Your task to perform on an android device: Go to wifi settings Image 0: 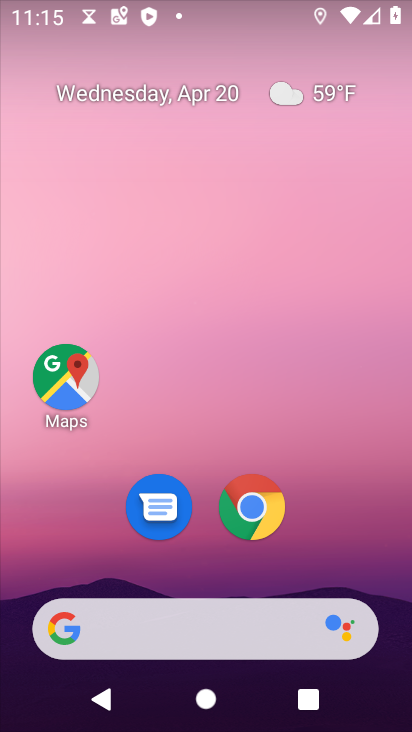
Step 0: drag from (253, 668) to (140, 223)
Your task to perform on an android device: Go to wifi settings Image 1: 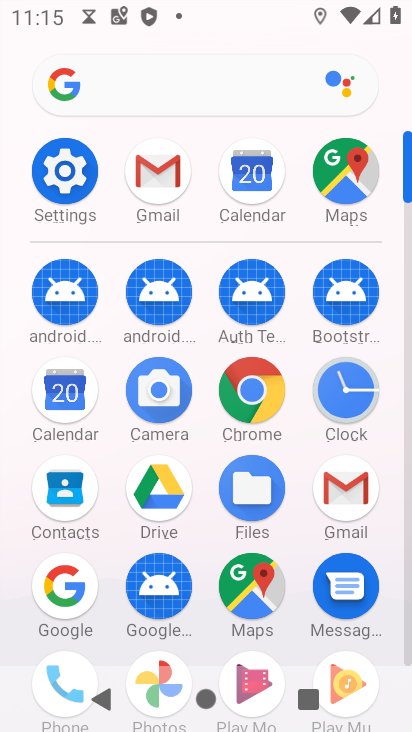
Step 1: click (50, 182)
Your task to perform on an android device: Go to wifi settings Image 2: 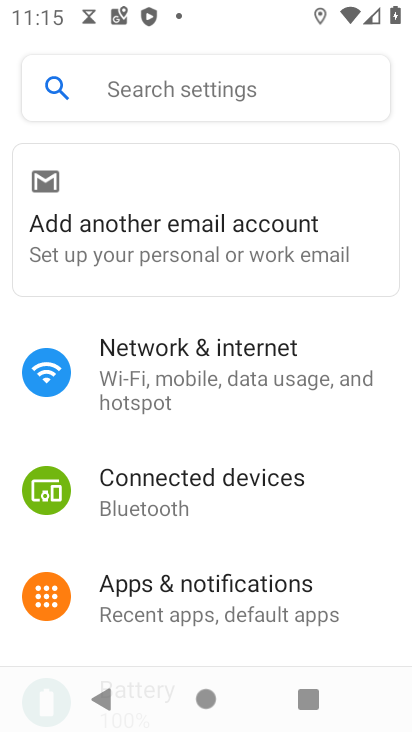
Step 2: click (163, 359)
Your task to perform on an android device: Go to wifi settings Image 3: 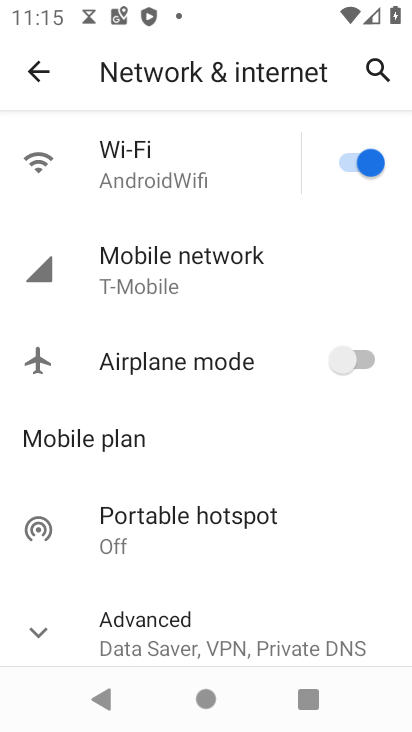
Step 3: click (176, 171)
Your task to perform on an android device: Go to wifi settings Image 4: 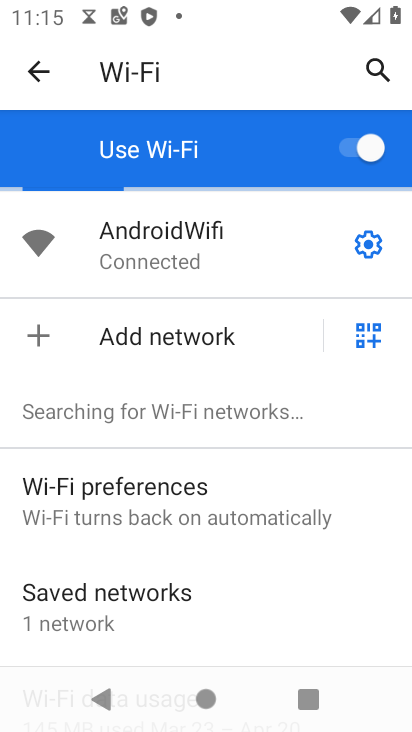
Step 4: task complete